Your task to perform on an android device: turn on improve location accuracy Image 0: 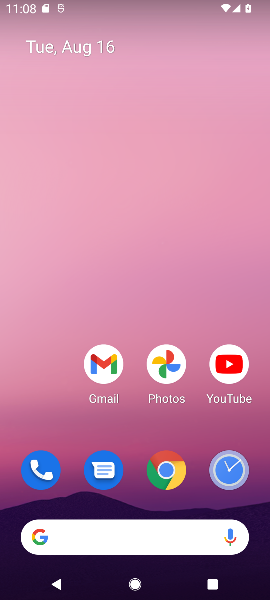
Step 0: drag from (60, 416) to (36, 23)
Your task to perform on an android device: turn on improve location accuracy Image 1: 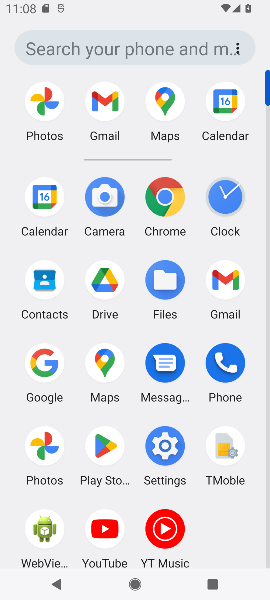
Step 1: click (164, 448)
Your task to perform on an android device: turn on improve location accuracy Image 2: 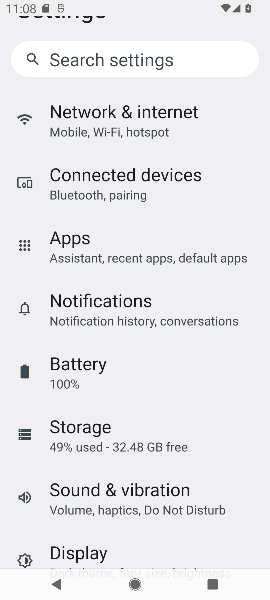
Step 2: drag from (154, 457) to (126, 53)
Your task to perform on an android device: turn on improve location accuracy Image 3: 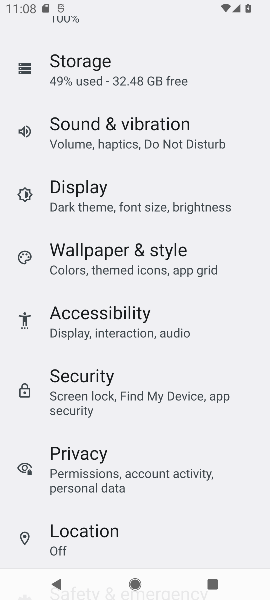
Step 3: drag from (131, 456) to (149, 226)
Your task to perform on an android device: turn on improve location accuracy Image 4: 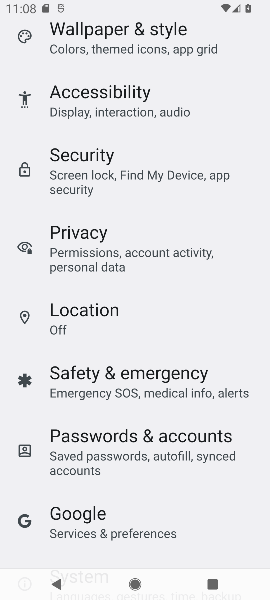
Step 4: click (122, 324)
Your task to perform on an android device: turn on improve location accuracy Image 5: 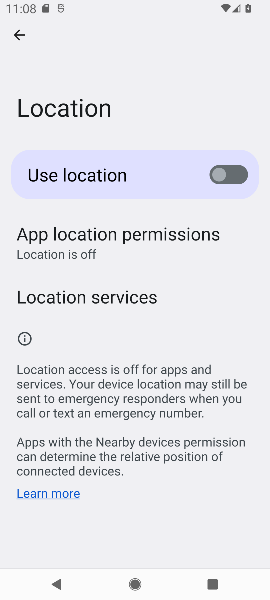
Step 5: click (93, 295)
Your task to perform on an android device: turn on improve location accuracy Image 6: 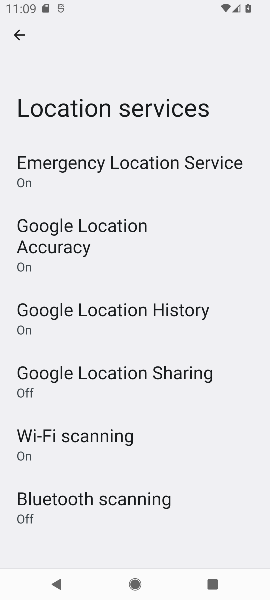
Step 6: task complete